Your task to perform on an android device: Toggle the flashlight Image 0: 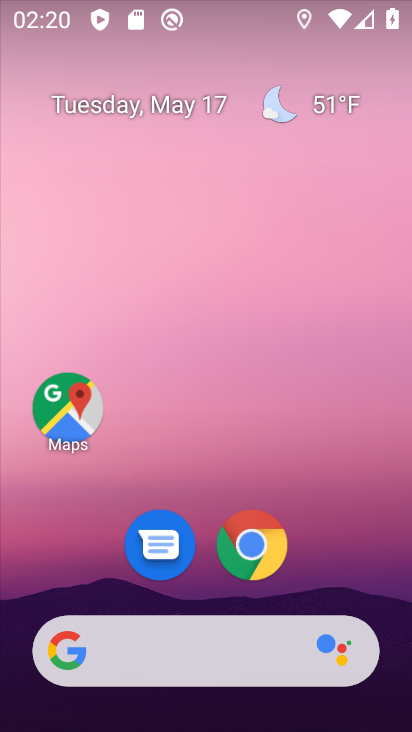
Step 0: task impossible